Your task to perform on an android device: Go to display settings Image 0: 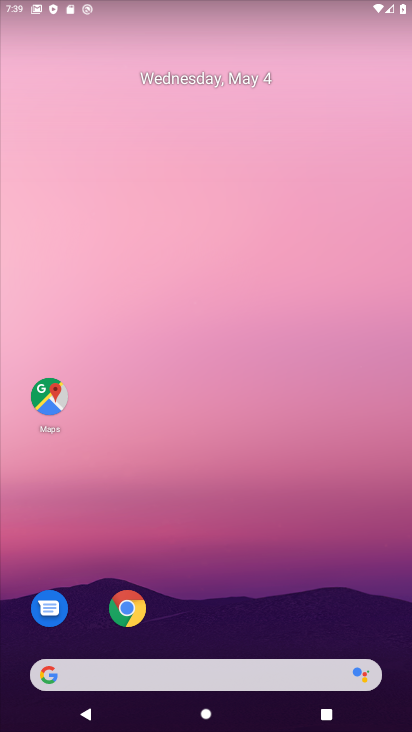
Step 0: drag from (329, 599) to (320, 51)
Your task to perform on an android device: Go to display settings Image 1: 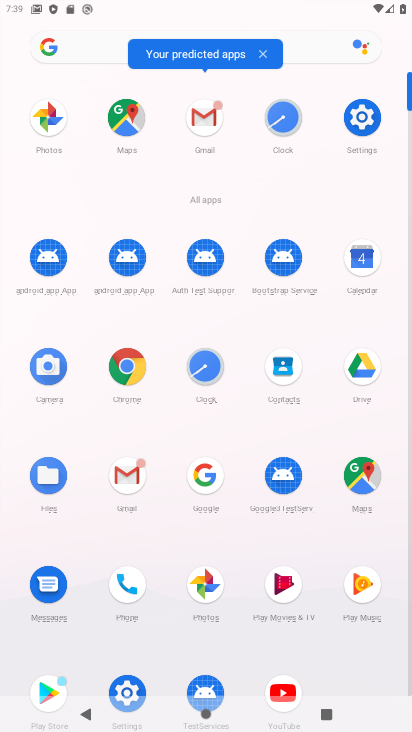
Step 1: click (360, 121)
Your task to perform on an android device: Go to display settings Image 2: 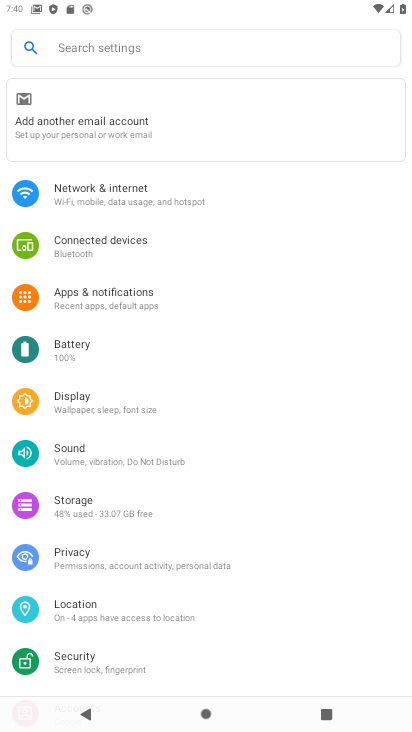
Step 2: click (74, 393)
Your task to perform on an android device: Go to display settings Image 3: 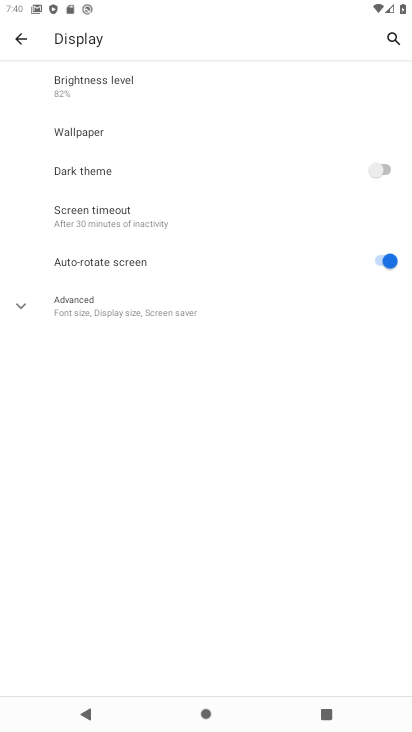
Step 3: click (17, 311)
Your task to perform on an android device: Go to display settings Image 4: 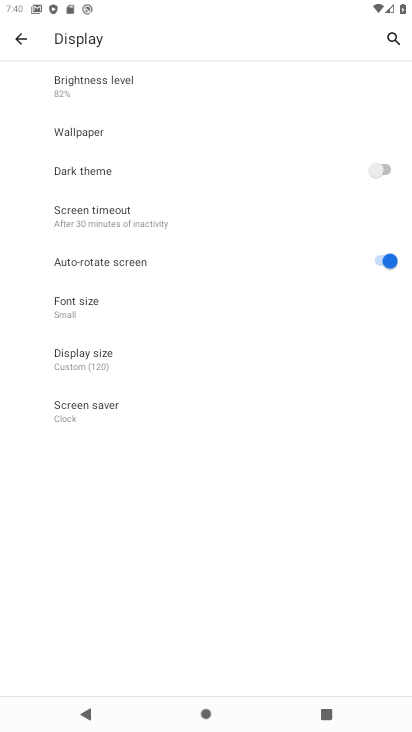
Step 4: task complete